Your task to perform on an android device: open app "Microsoft Excel" Image 0: 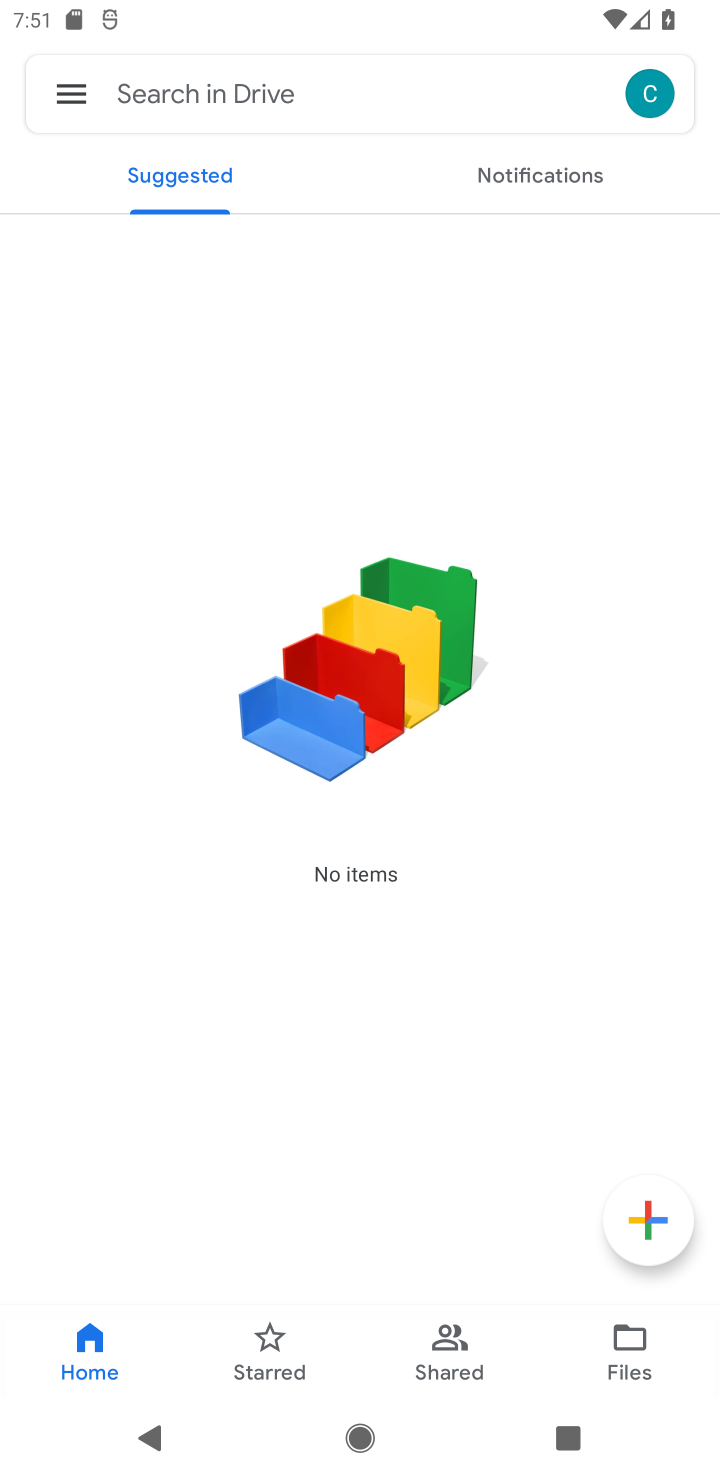
Step 0: press home button
Your task to perform on an android device: open app "Microsoft Excel" Image 1: 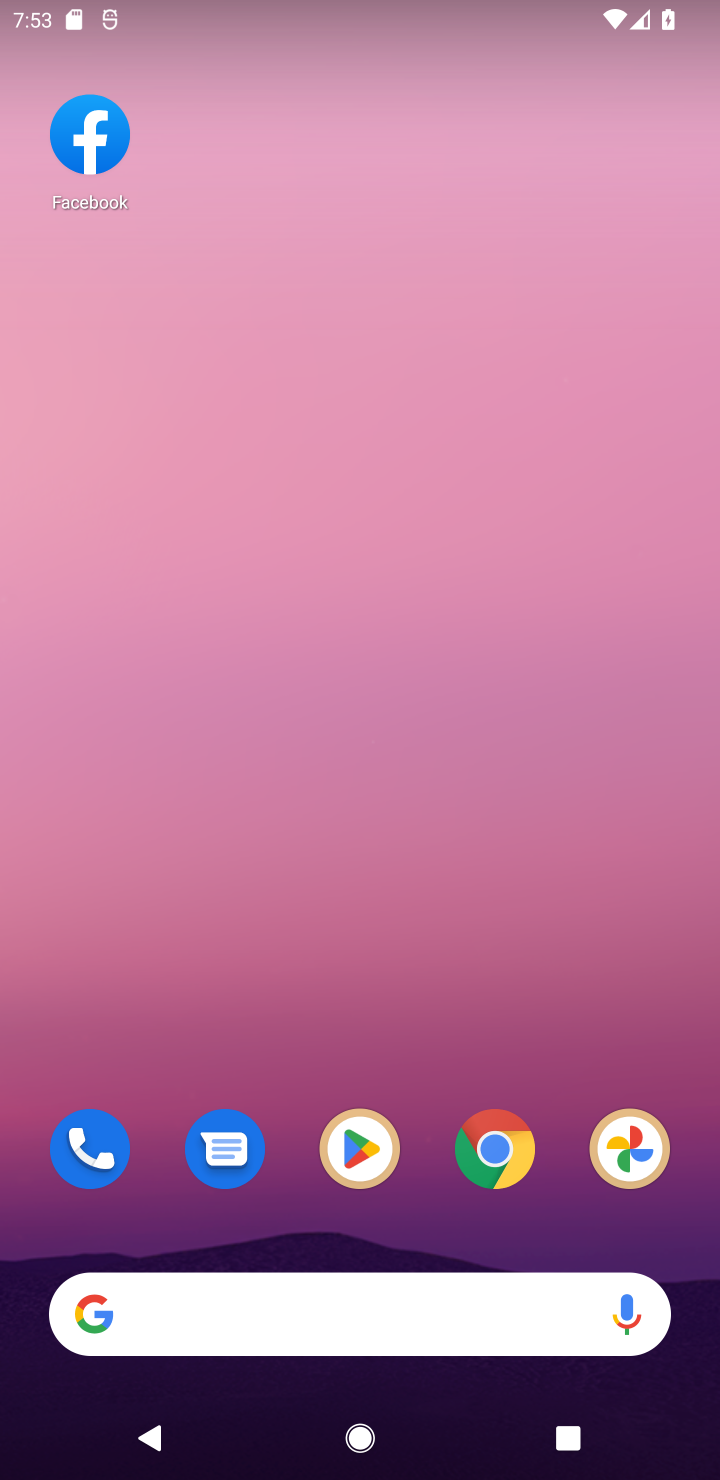
Step 1: drag from (677, 1215) to (304, 0)
Your task to perform on an android device: open app "Microsoft Excel" Image 2: 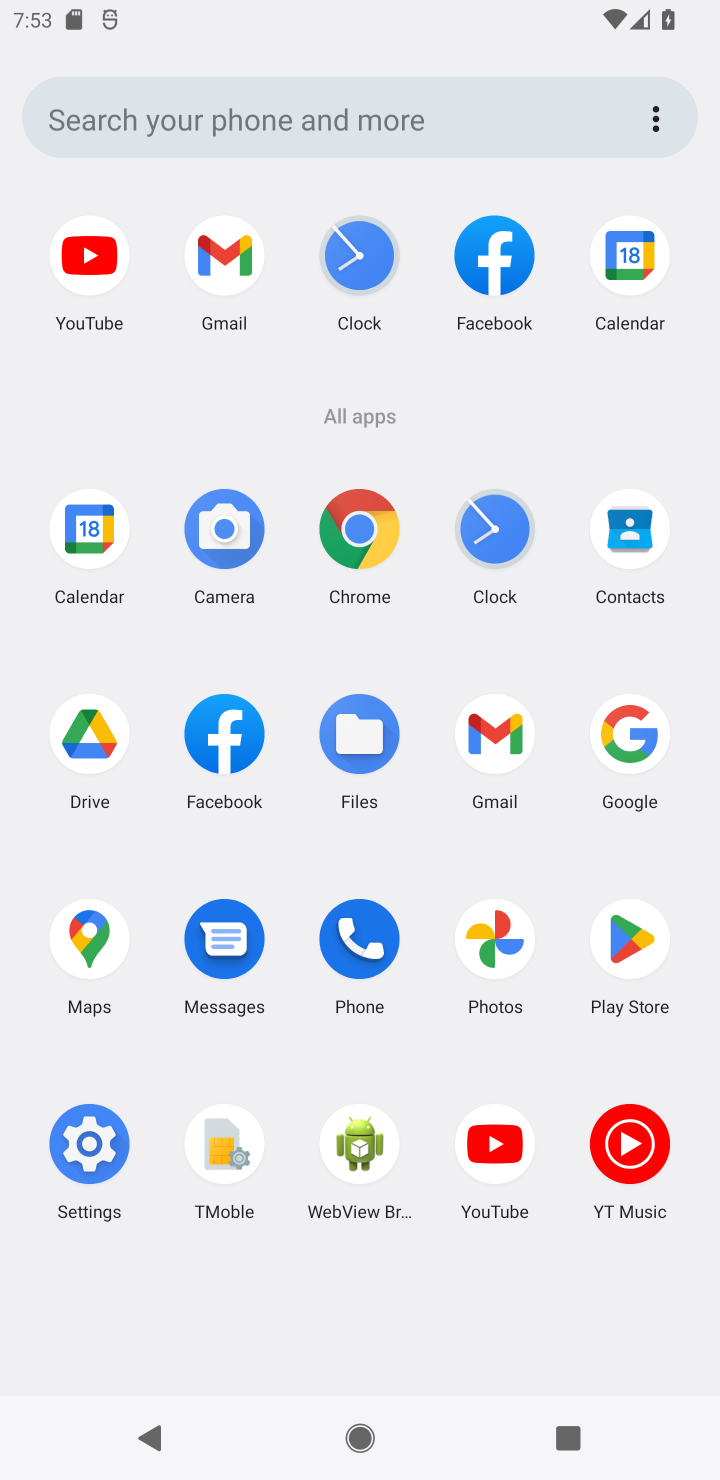
Step 2: click (608, 958)
Your task to perform on an android device: open app "Microsoft Excel" Image 3: 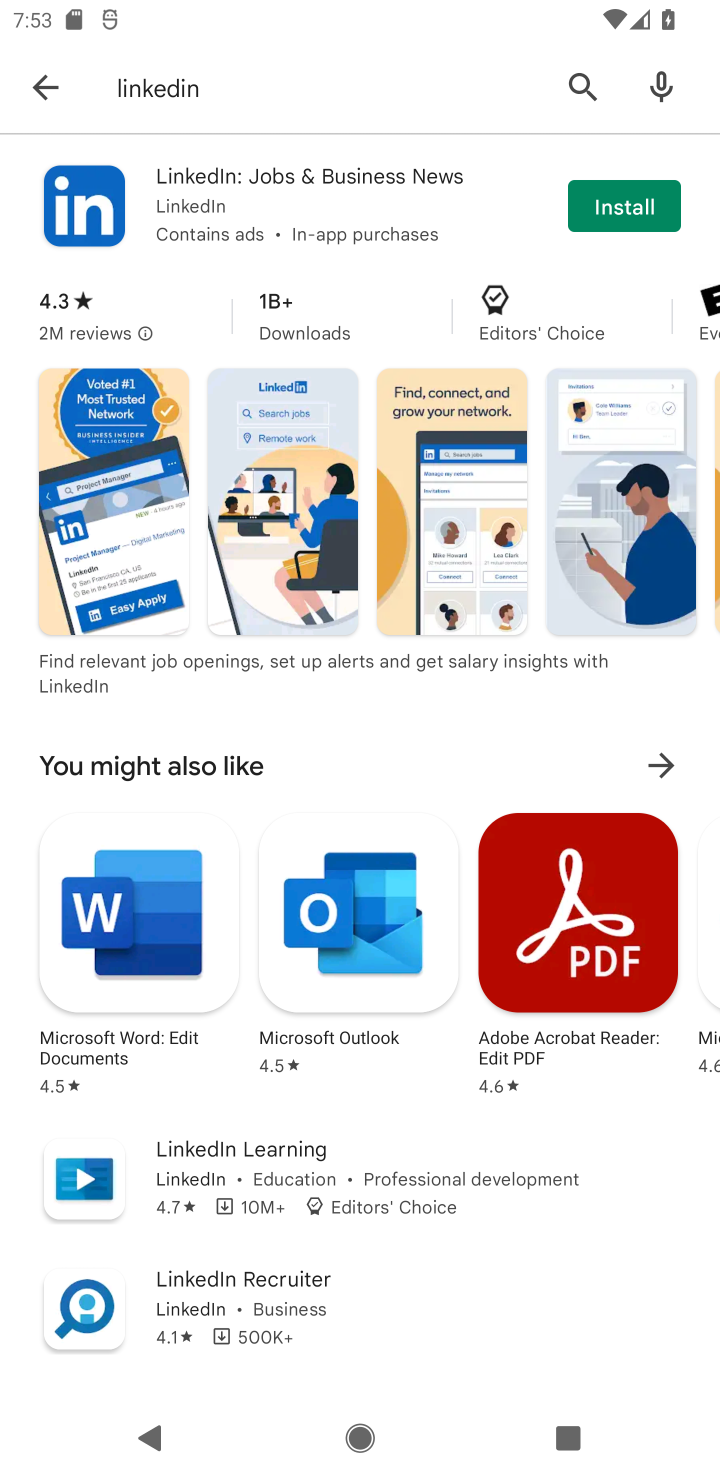
Step 3: press back button
Your task to perform on an android device: open app "Microsoft Excel" Image 4: 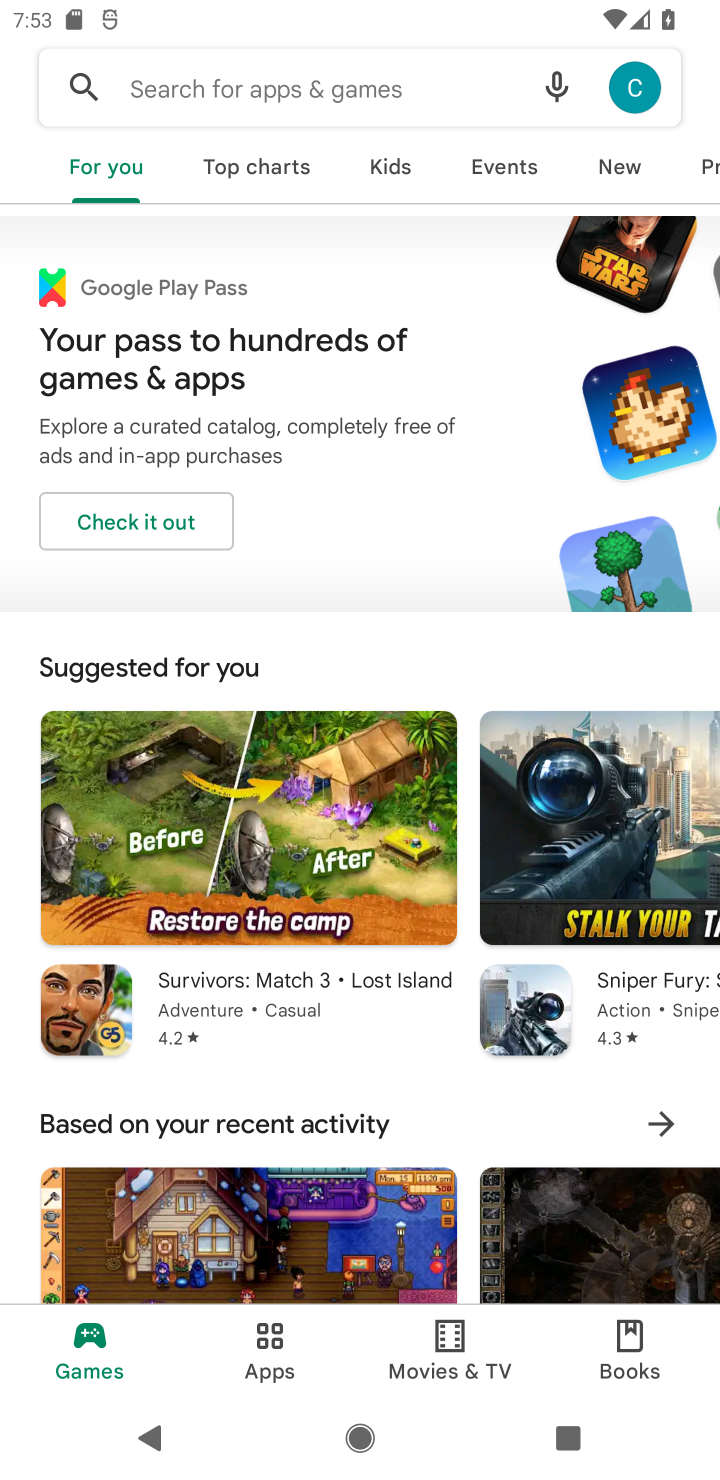
Step 4: click (218, 75)
Your task to perform on an android device: open app "Microsoft Excel" Image 5: 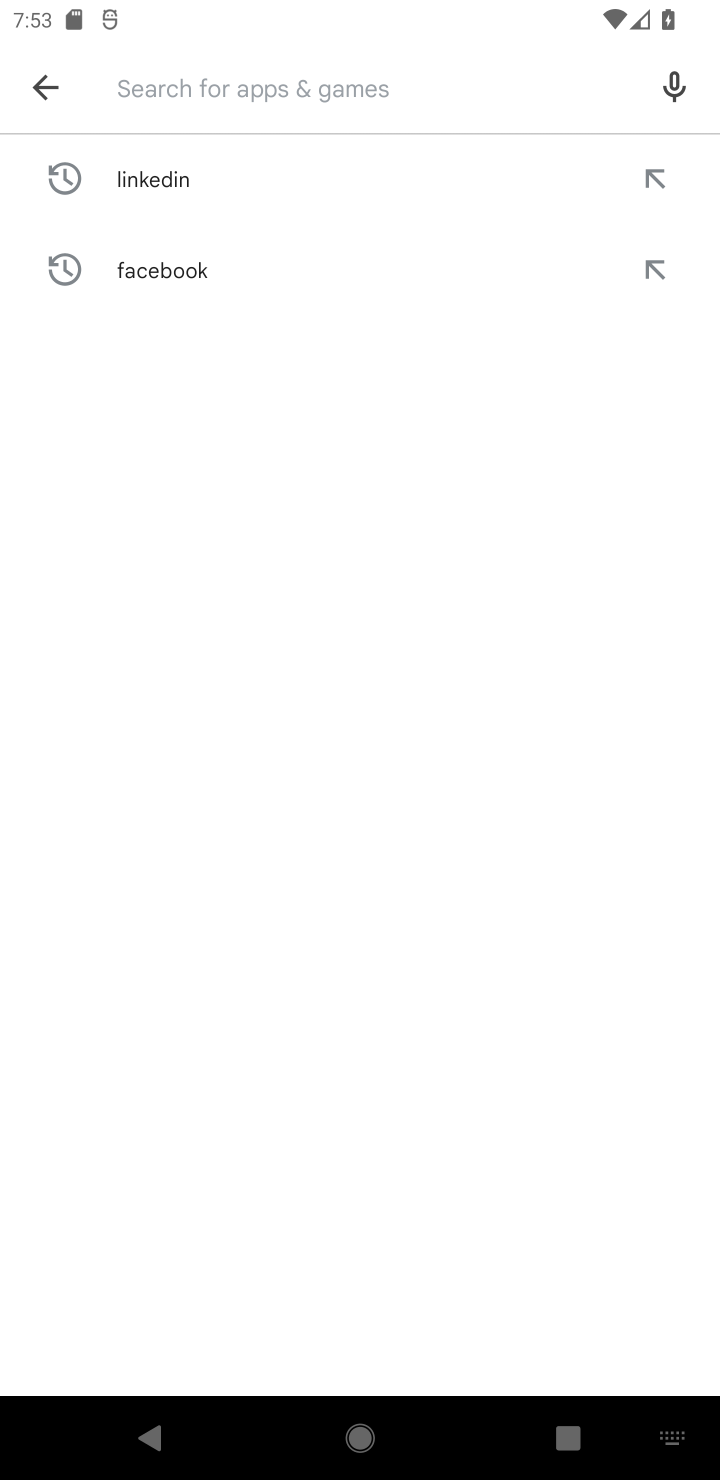
Step 5: type "Microsoft Excel"
Your task to perform on an android device: open app "Microsoft Excel" Image 6: 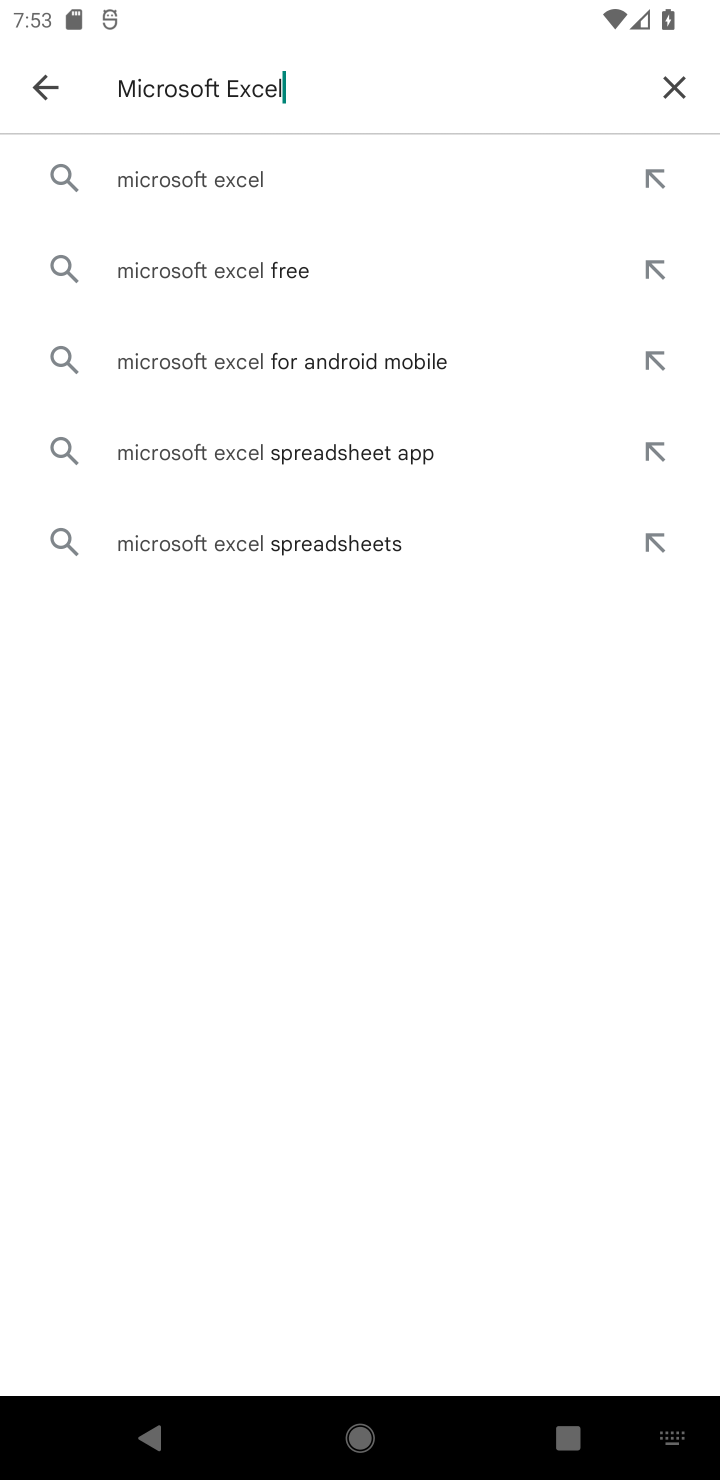
Step 6: click (246, 168)
Your task to perform on an android device: open app "Microsoft Excel" Image 7: 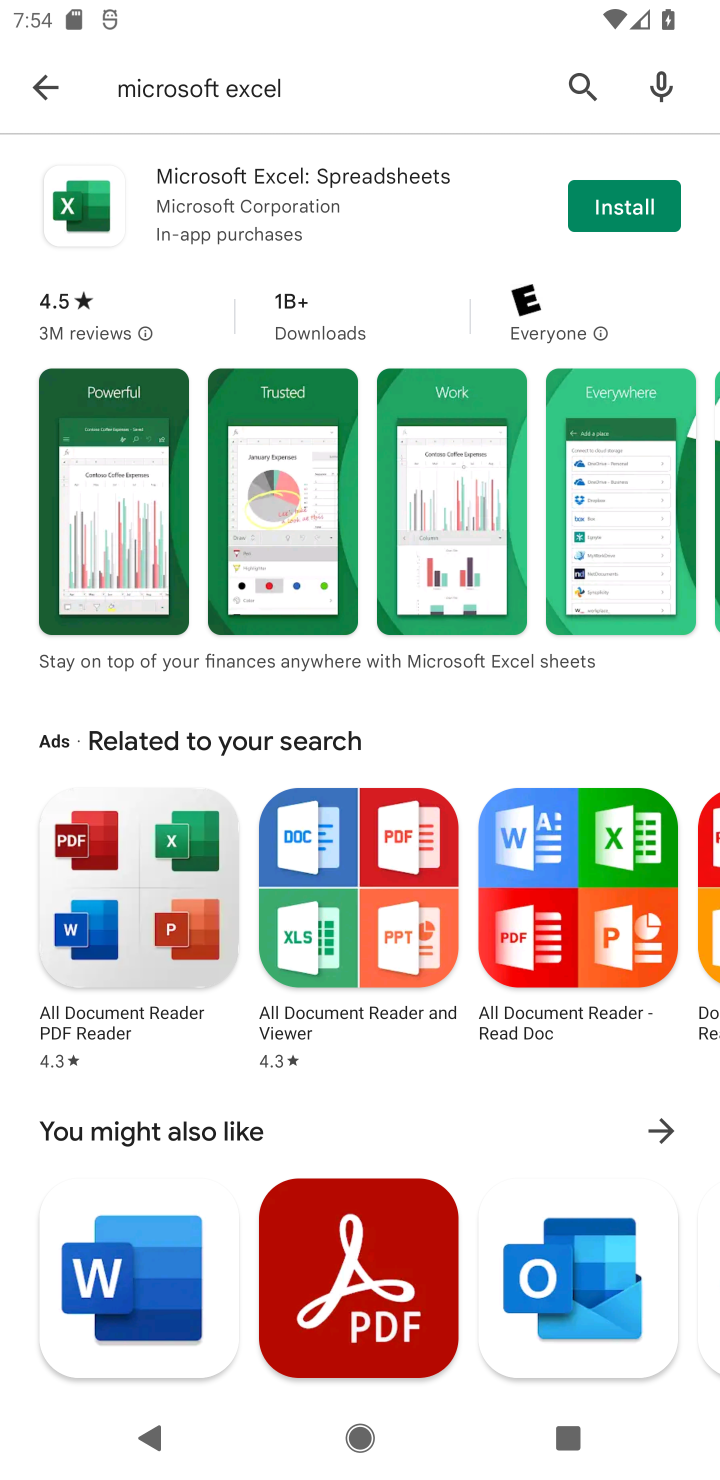
Step 7: task complete